Your task to perform on an android device: set the timer Image 0: 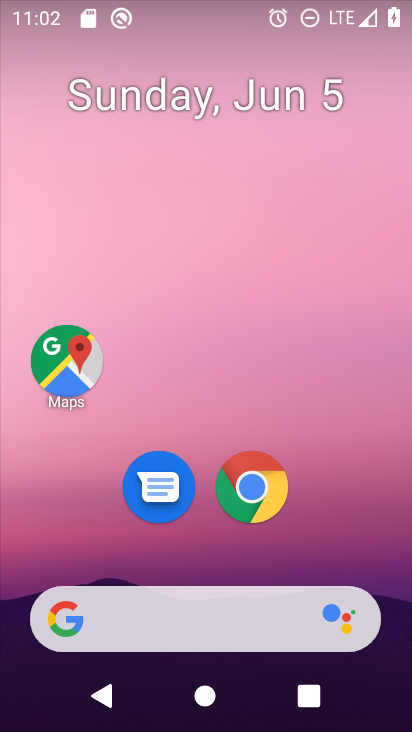
Step 0: drag from (244, 568) to (186, 282)
Your task to perform on an android device: set the timer Image 1: 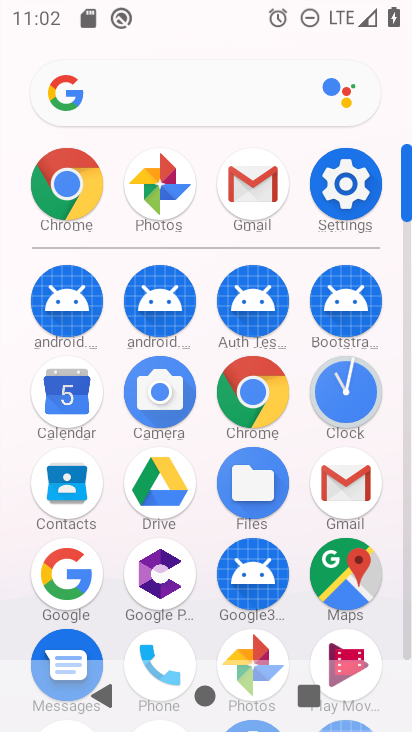
Step 1: click (344, 386)
Your task to perform on an android device: set the timer Image 2: 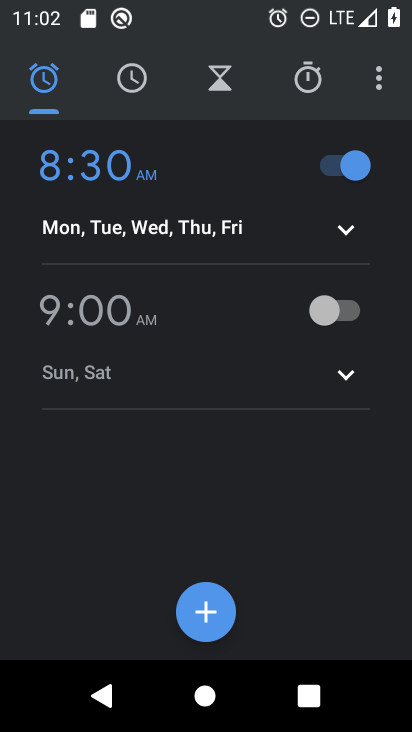
Step 2: click (305, 78)
Your task to perform on an android device: set the timer Image 3: 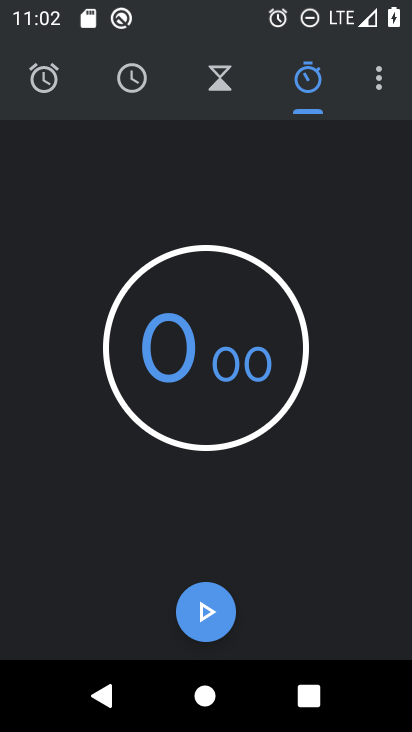
Step 3: click (219, 75)
Your task to perform on an android device: set the timer Image 4: 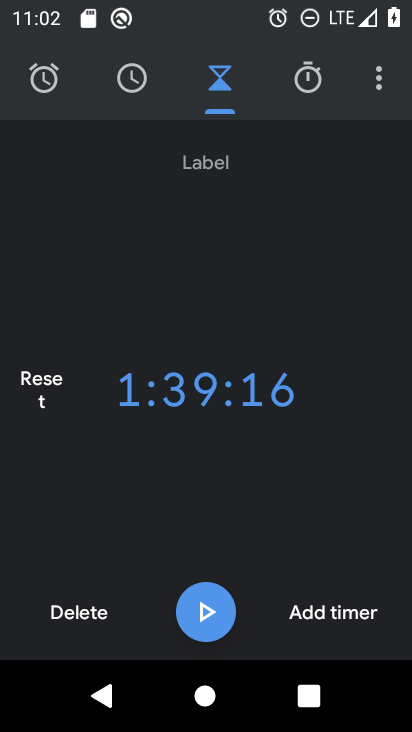
Step 4: click (209, 598)
Your task to perform on an android device: set the timer Image 5: 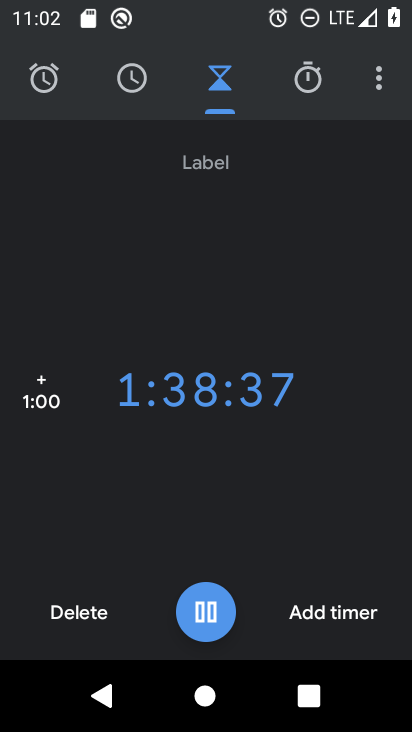
Step 5: task complete